Your task to perform on an android device: toggle translation in the chrome app Image 0: 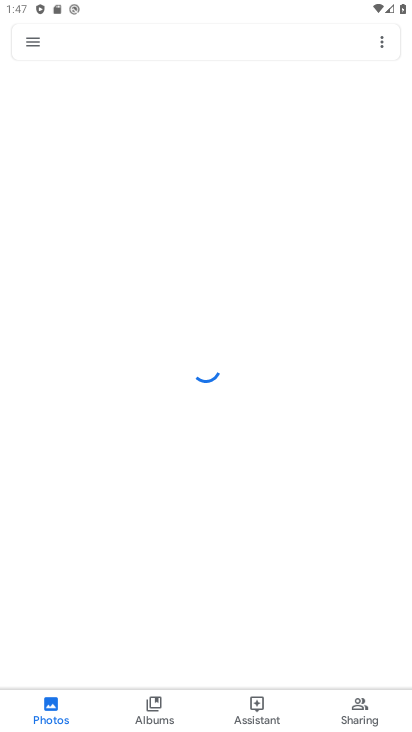
Step 0: press home button
Your task to perform on an android device: toggle translation in the chrome app Image 1: 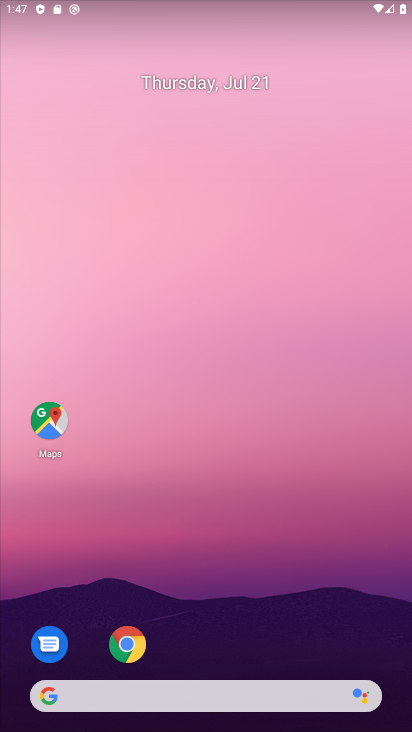
Step 1: click (125, 641)
Your task to perform on an android device: toggle translation in the chrome app Image 2: 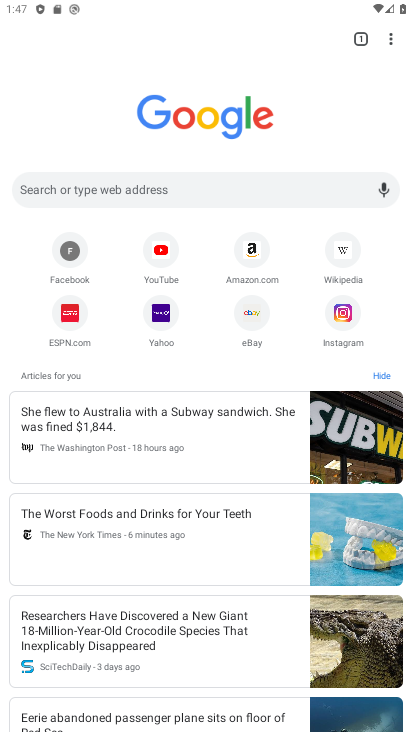
Step 2: click (388, 45)
Your task to perform on an android device: toggle translation in the chrome app Image 3: 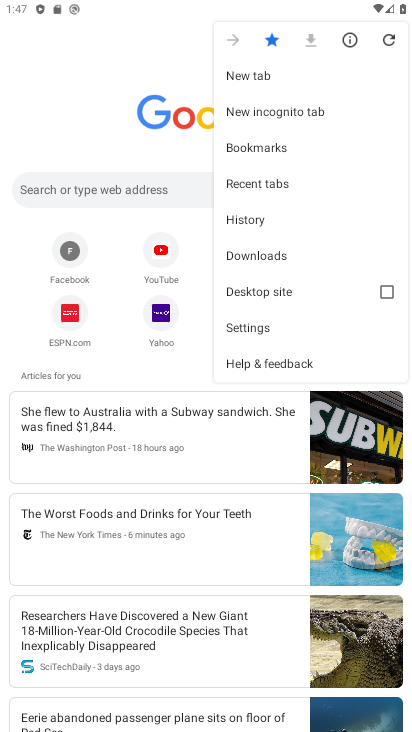
Step 3: click (243, 322)
Your task to perform on an android device: toggle translation in the chrome app Image 4: 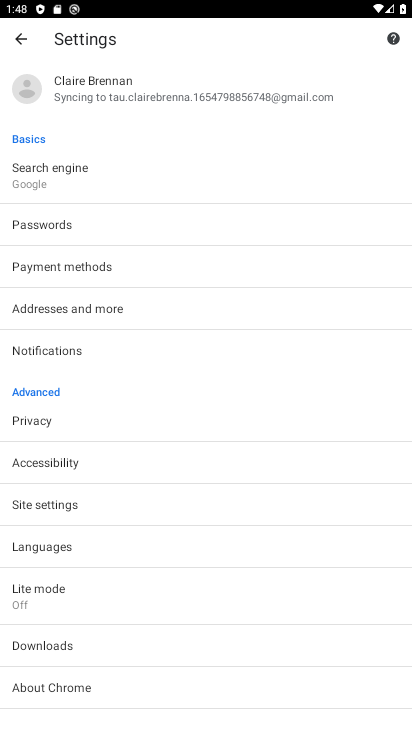
Step 4: click (68, 542)
Your task to perform on an android device: toggle translation in the chrome app Image 5: 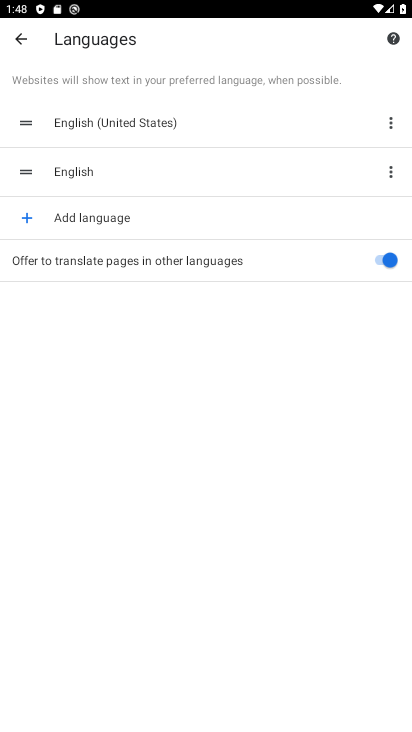
Step 5: click (369, 249)
Your task to perform on an android device: toggle translation in the chrome app Image 6: 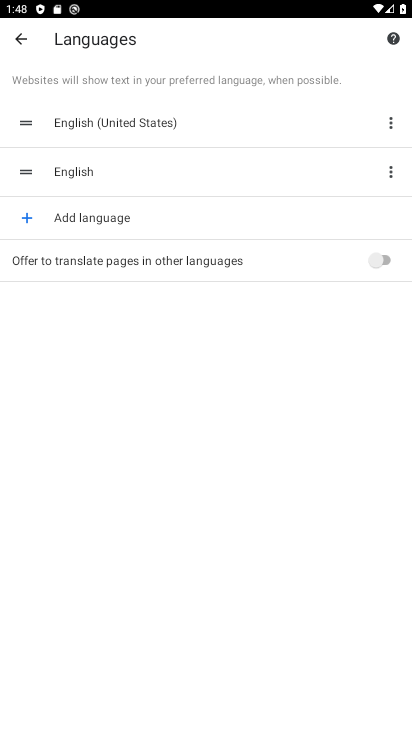
Step 6: task complete